Your task to perform on an android device: add a contact Image 0: 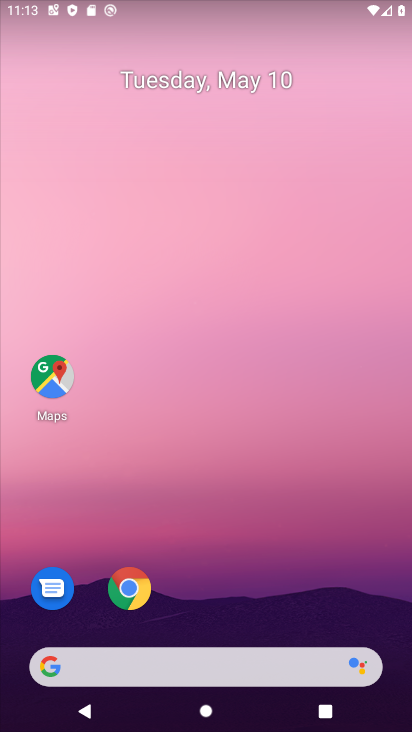
Step 0: drag from (212, 340) to (193, 275)
Your task to perform on an android device: add a contact Image 1: 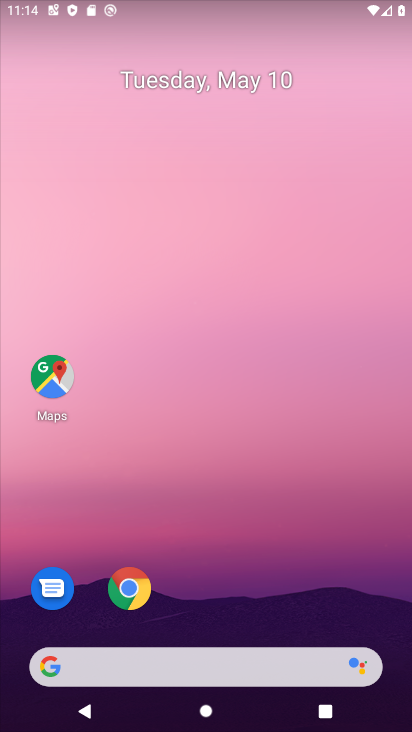
Step 1: drag from (257, 451) to (199, 206)
Your task to perform on an android device: add a contact Image 2: 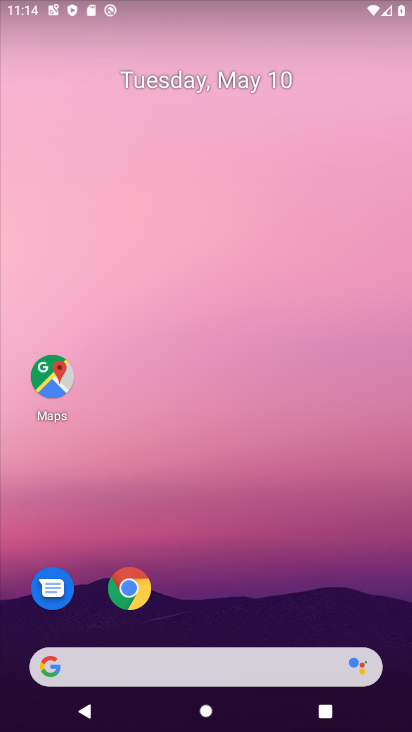
Step 2: drag from (307, 305) to (325, 185)
Your task to perform on an android device: add a contact Image 3: 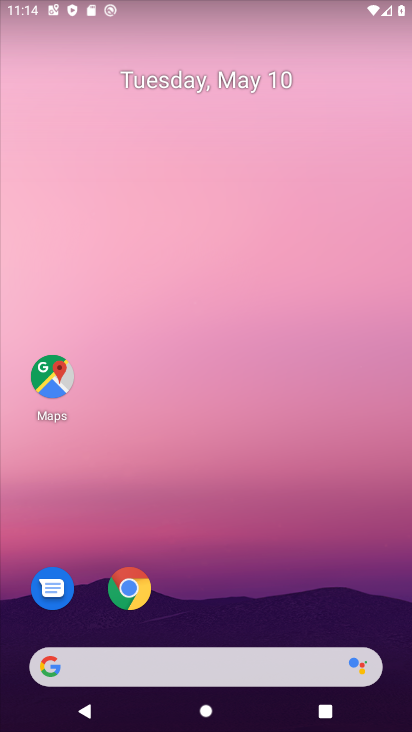
Step 3: click (251, 310)
Your task to perform on an android device: add a contact Image 4: 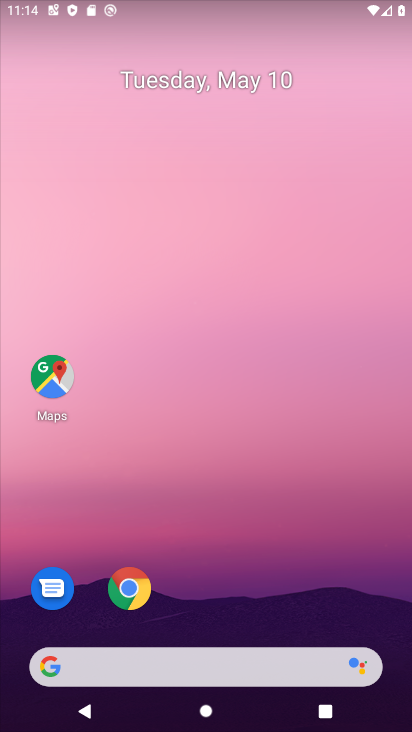
Step 4: click (109, 49)
Your task to perform on an android device: add a contact Image 5: 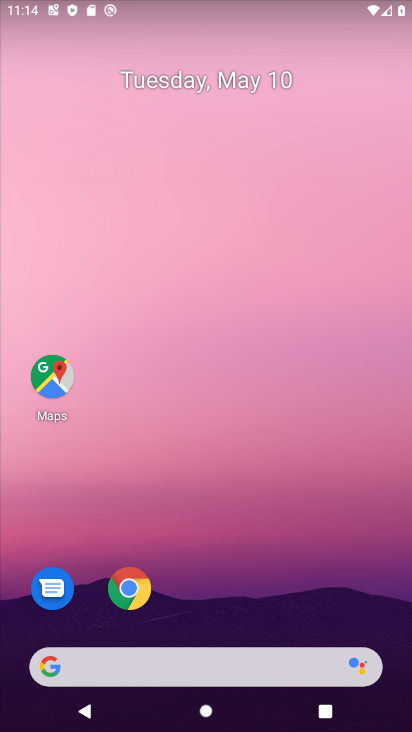
Step 5: drag from (139, 227) to (302, 84)
Your task to perform on an android device: add a contact Image 6: 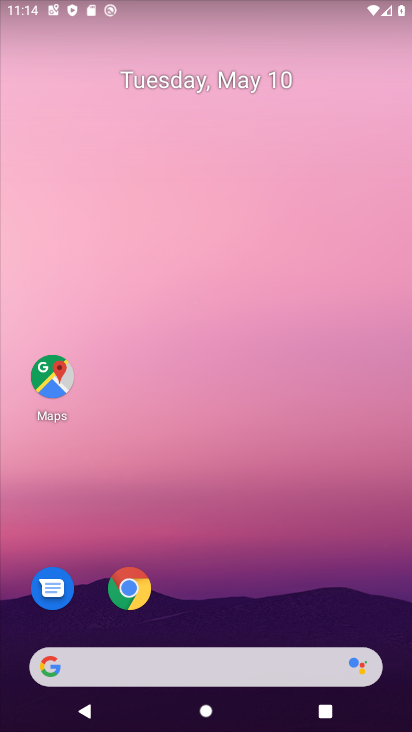
Step 6: drag from (258, 515) to (217, 34)
Your task to perform on an android device: add a contact Image 7: 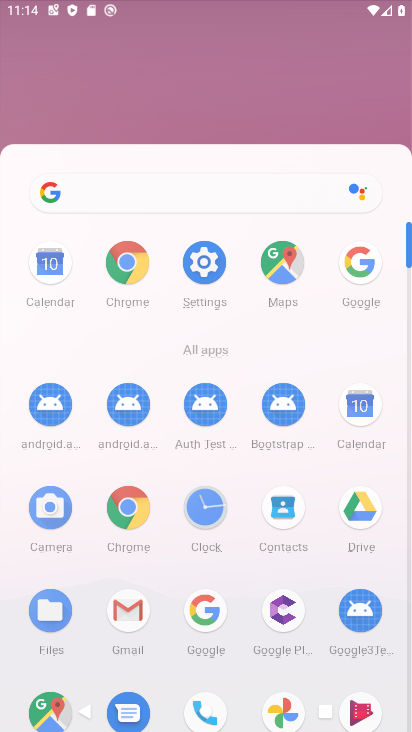
Step 7: drag from (190, 537) to (156, 109)
Your task to perform on an android device: add a contact Image 8: 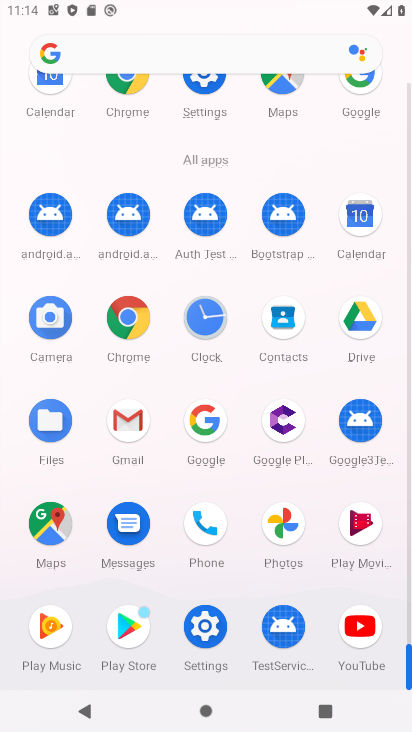
Step 8: click (289, 327)
Your task to perform on an android device: add a contact Image 9: 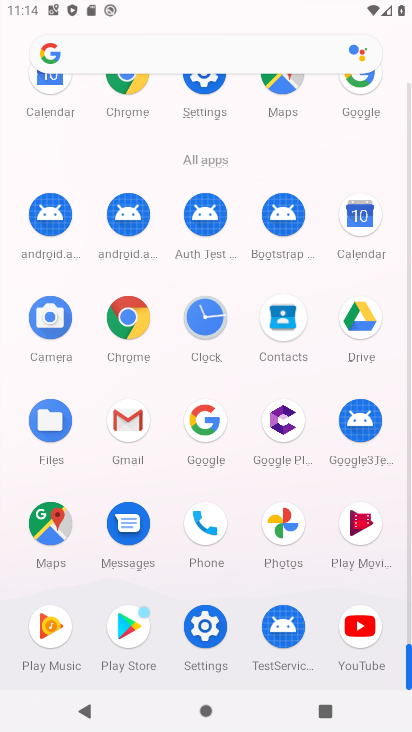
Step 9: click (289, 324)
Your task to perform on an android device: add a contact Image 10: 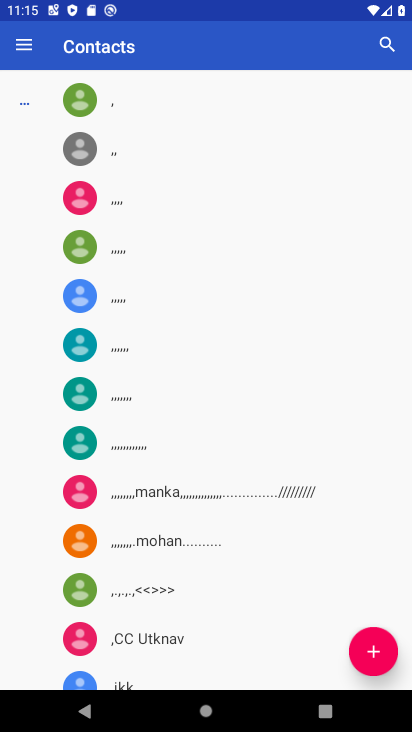
Step 10: click (365, 638)
Your task to perform on an android device: add a contact Image 11: 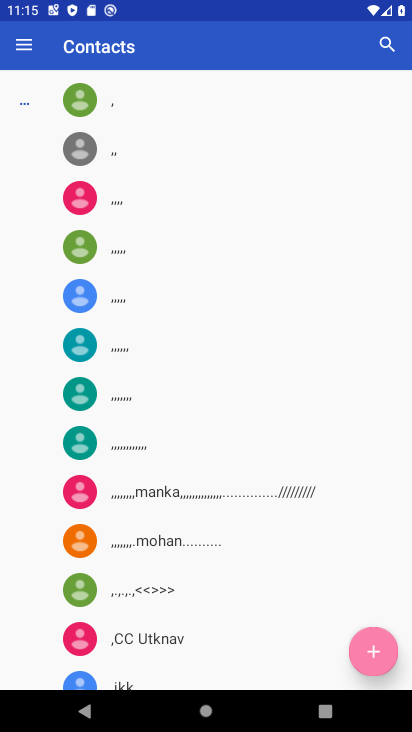
Step 11: click (365, 638)
Your task to perform on an android device: add a contact Image 12: 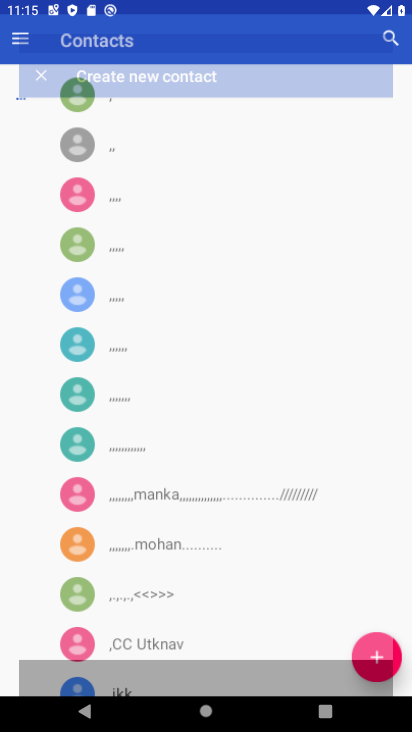
Step 12: click (365, 638)
Your task to perform on an android device: add a contact Image 13: 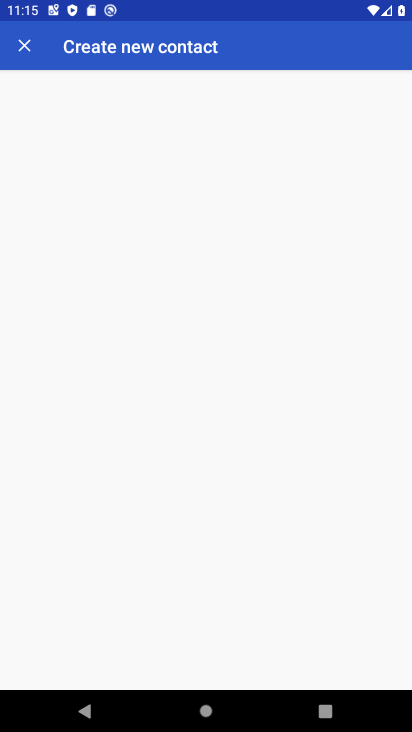
Step 13: click (374, 658)
Your task to perform on an android device: add a contact Image 14: 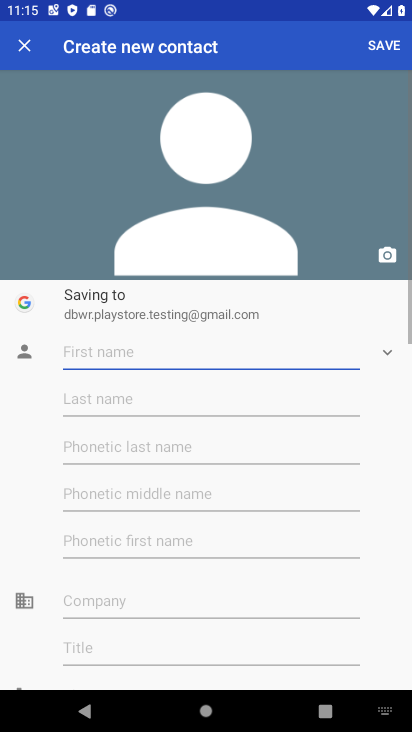
Step 14: click (374, 658)
Your task to perform on an android device: add a contact Image 15: 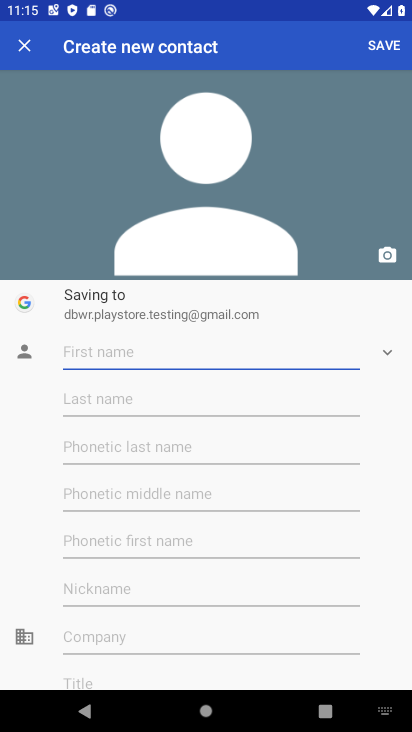
Step 15: drag from (76, 347) to (131, 345)
Your task to perform on an android device: add a contact Image 16: 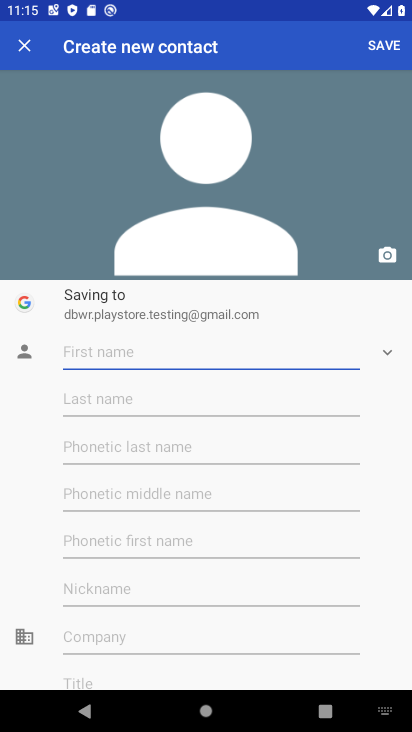
Step 16: type "hdsdgcjdhc"
Your task to perform on an android device: add a contact Image 17: 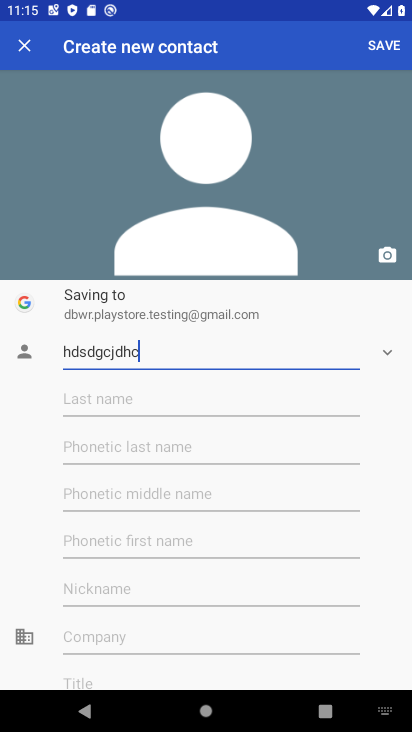
Step 17: click (95, 447)
Your task to perform on an android device: add a contact Image 18: 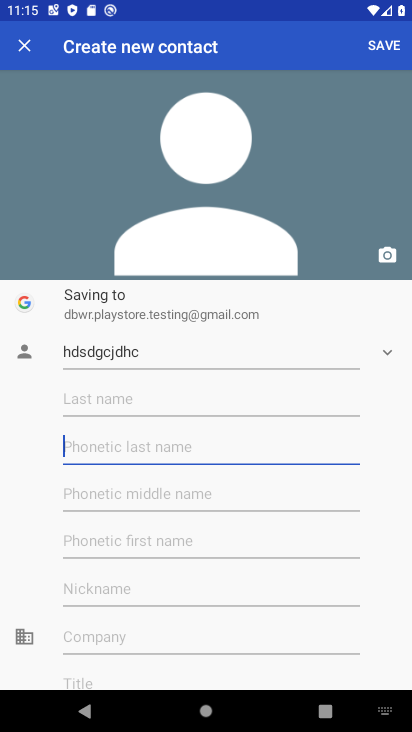
Step 18: click (95, 447)
Your task to perform on an android device: add a contact Image 19: 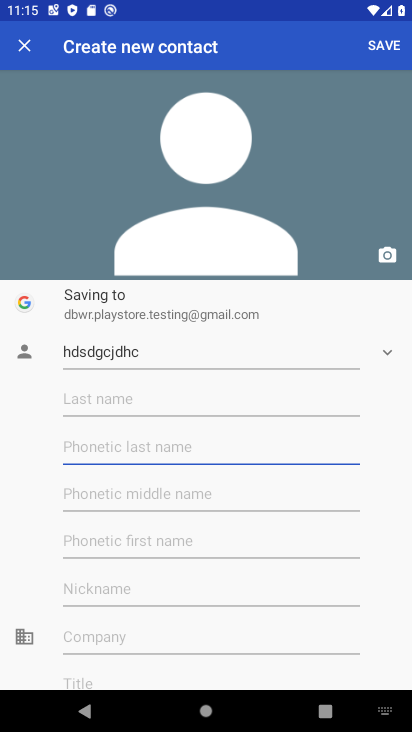
Step 19: type "89798789374498"
Your task to perform on an android device: add a contact Image 20: 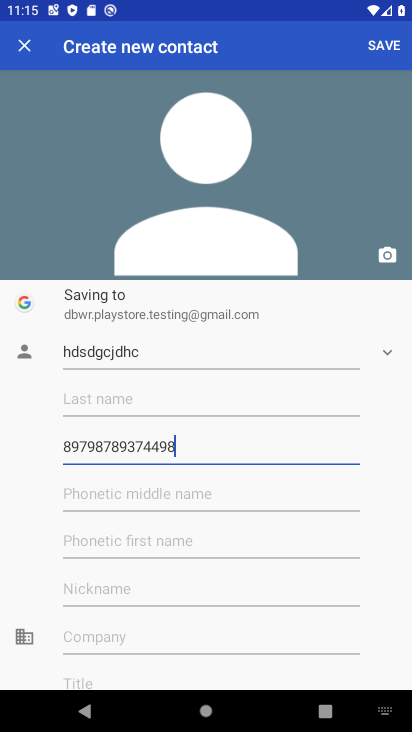
Step 20: click (383, 44)
Your task to perform on an android device: add a contact Image 21: 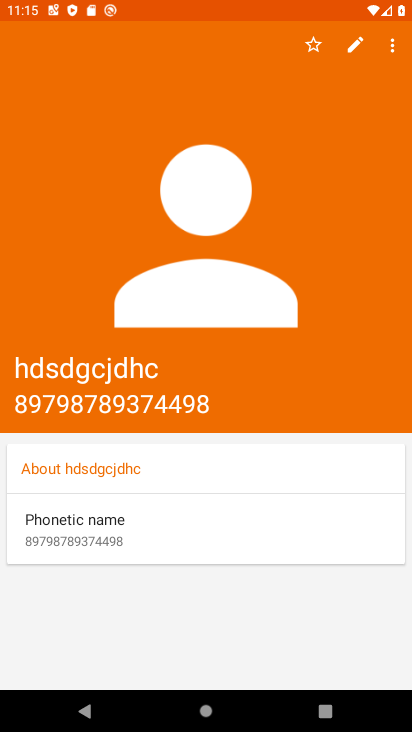
Step 21: task complete